Your task to perform on an android device: Open settings Image 0: 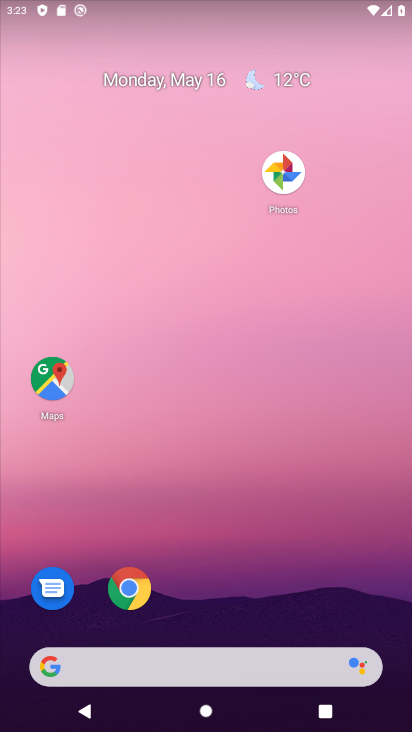
Step 0: drag from (182, 627) to (134, 78)
Your task to perform on an android device: Open settings Image 1: 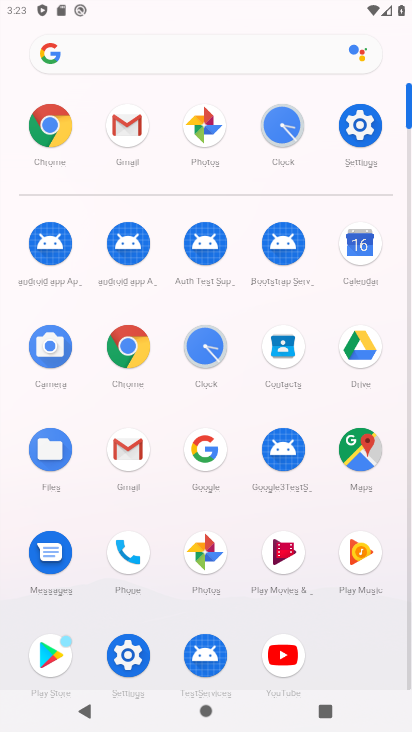
Step 1: click (349, 128)
Your task to perform on an android device: Open settings Image 2: 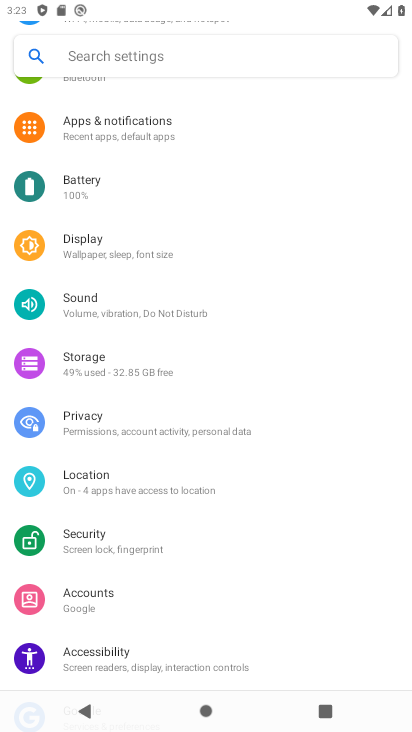
Step 2: task complete